Your task to perform on an android device: Open calendar and show me the third week of next month Image 0: 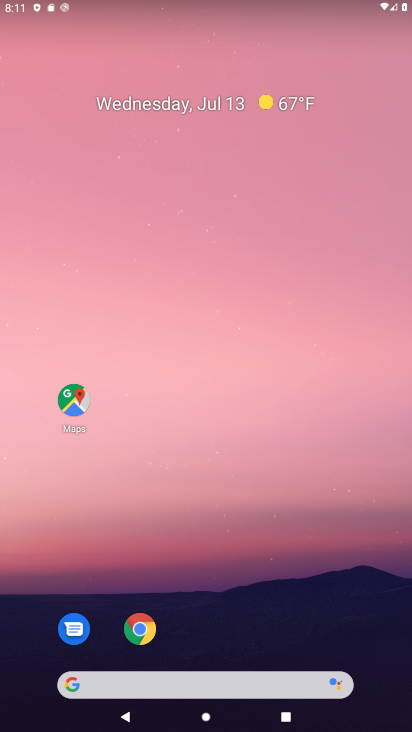
Step 0: drag from (227, 646) to (267, 37)
Your task to perform on an android device: Open calendar and show me the third week of next month Image 1: 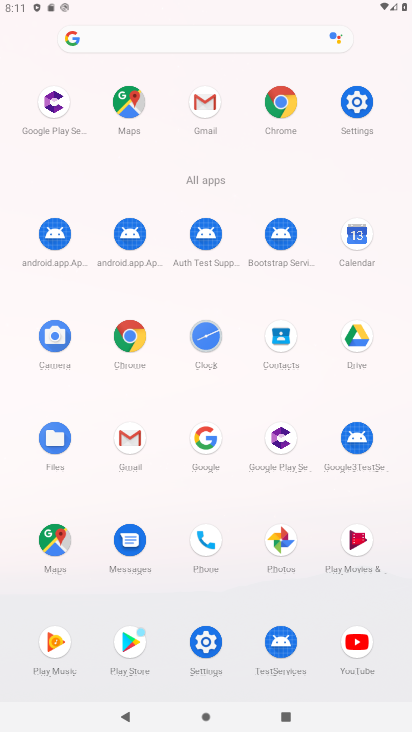
Step 1: click (364, 248)
Your task to perform on an android device: Open calendar and show me the third week of next month Image 2: 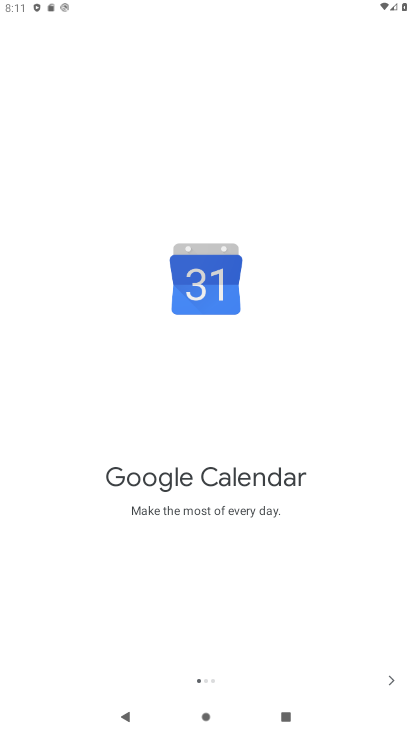
Step 2: click (396, 679)
Your task to perform on an android device: Open calendar and show me the third week of next month Image 3: 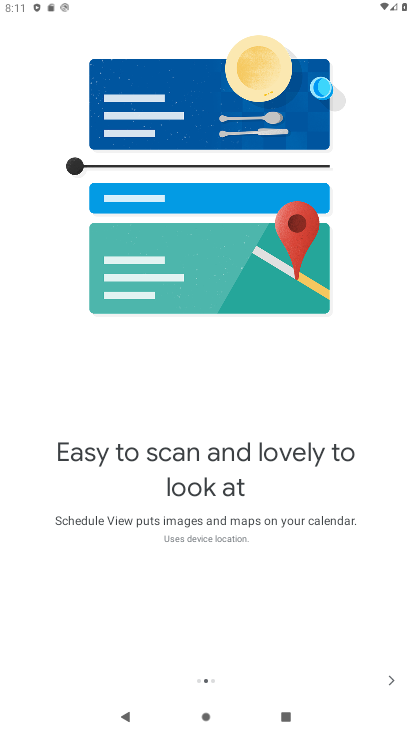
Step 3: click (378, 681)
Your task to perform on an android device: Open calendar and show me the third week of next month Image 4: 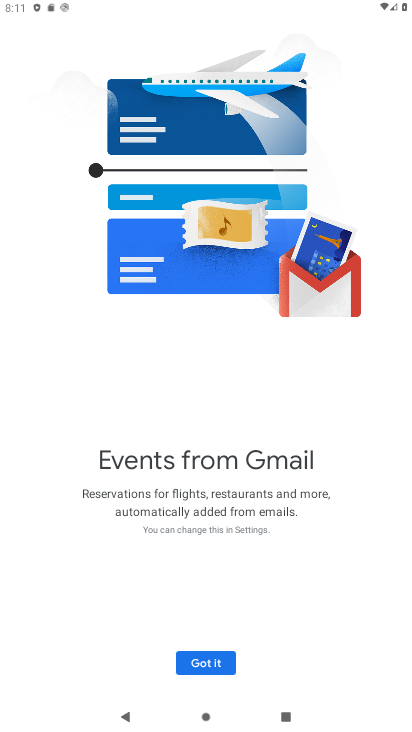
Step 4: click (213, 666)
Your task to perform on an android device: Open calendar and show me the third week of next month Image 5: 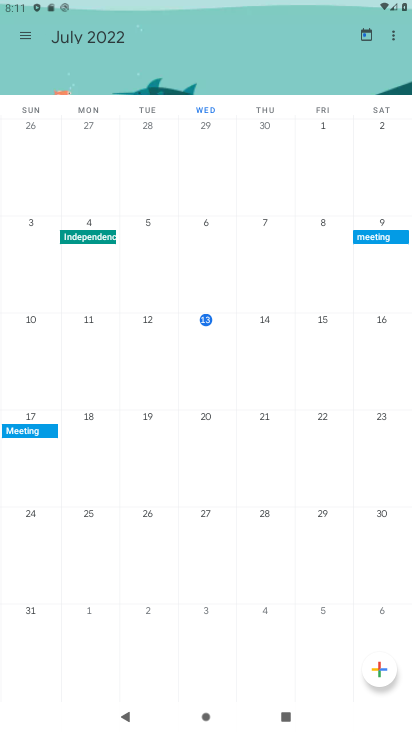
Step 5: drag from (324, 234) to (22, 243)
Your task to perform on an android device: Open calendar and show me the third week of next month Image 6: 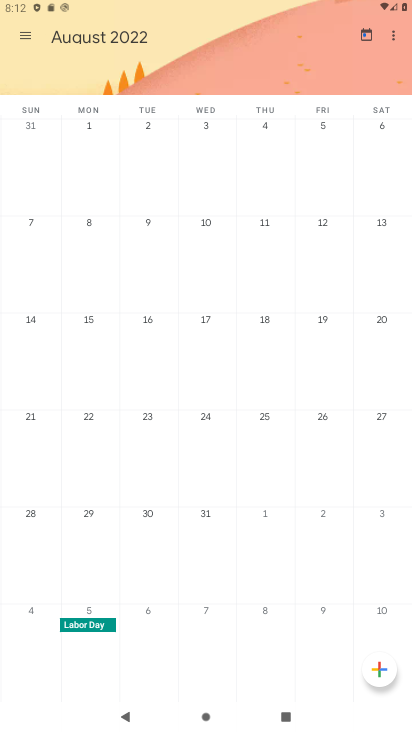
Step 6: click (23, 30)
Your task to perform on an android device: Open calendar and show me the third week of next month Image 7: 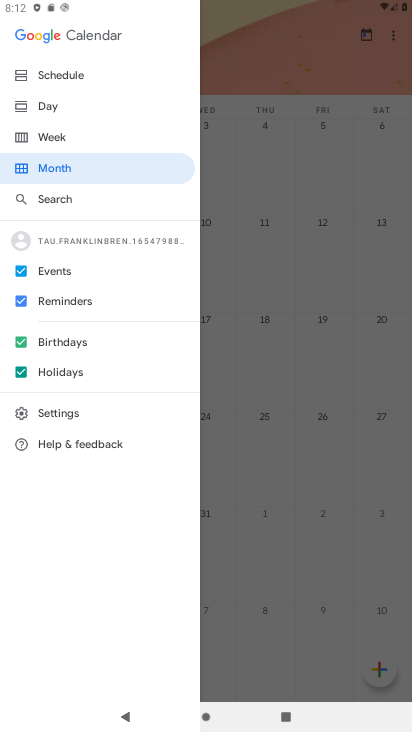
Step 7: click (66, 134)
Your task to perform on an android device: Open calendar and show me the third week of next month Image 8: 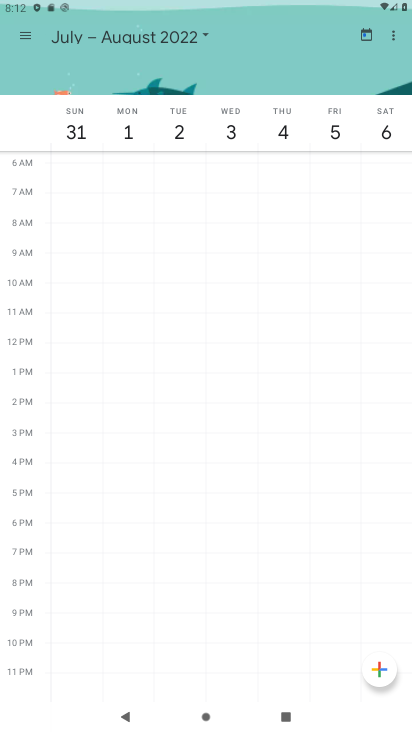
Step 8: task complete